Your task to perform on an android device: Open calendar and show me the third week of next month Image 0: 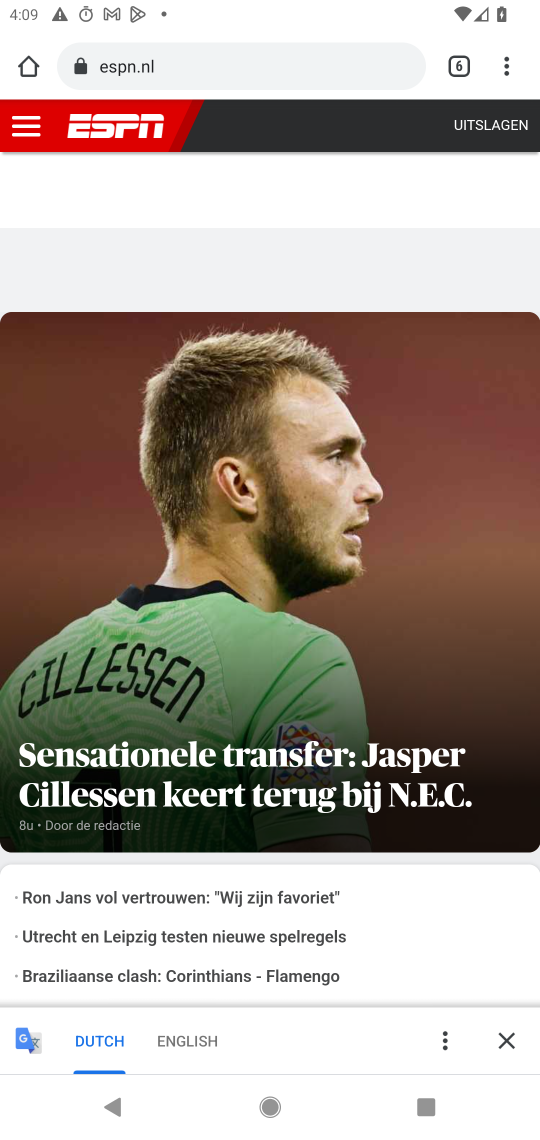
Step 0: press home button
Your task to perform on an android device: Open calendar and show me the third week of next month Image 1: 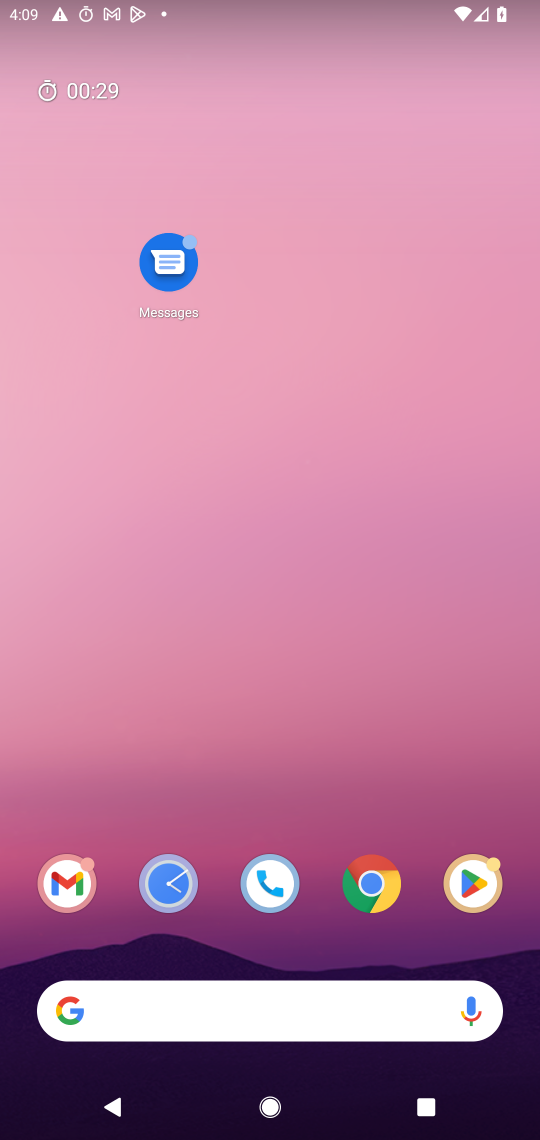
Step 1: drag from (315, 1076) to (318, 21)
Your task to perform on an android device: Open calendar and show me the third week of next month Image 2: 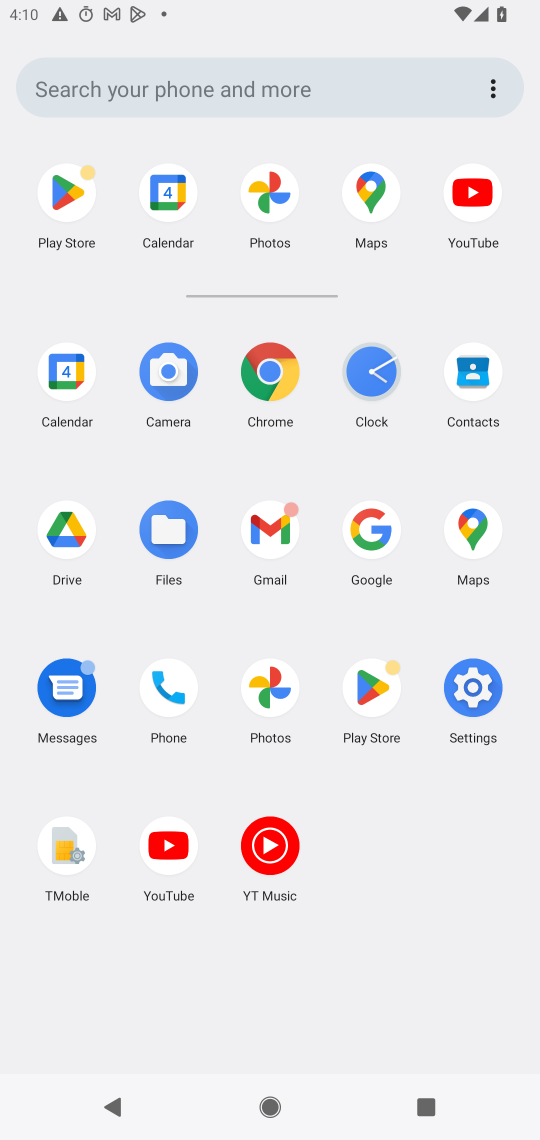
Step 2: click (59, 359)
Your task to perform on an android device: Open calendar and show me the third week of next month Image 3: 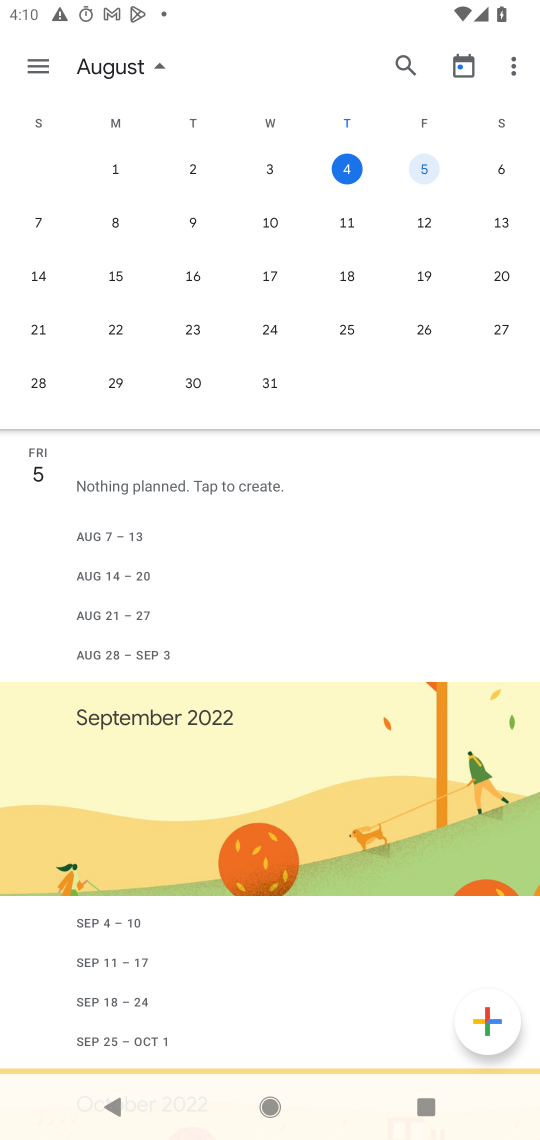
Step 3: drag from (473, 248) to (140, 231)
Your task to perform on an android device: Open calendar and show me the third week of next month Image 4: 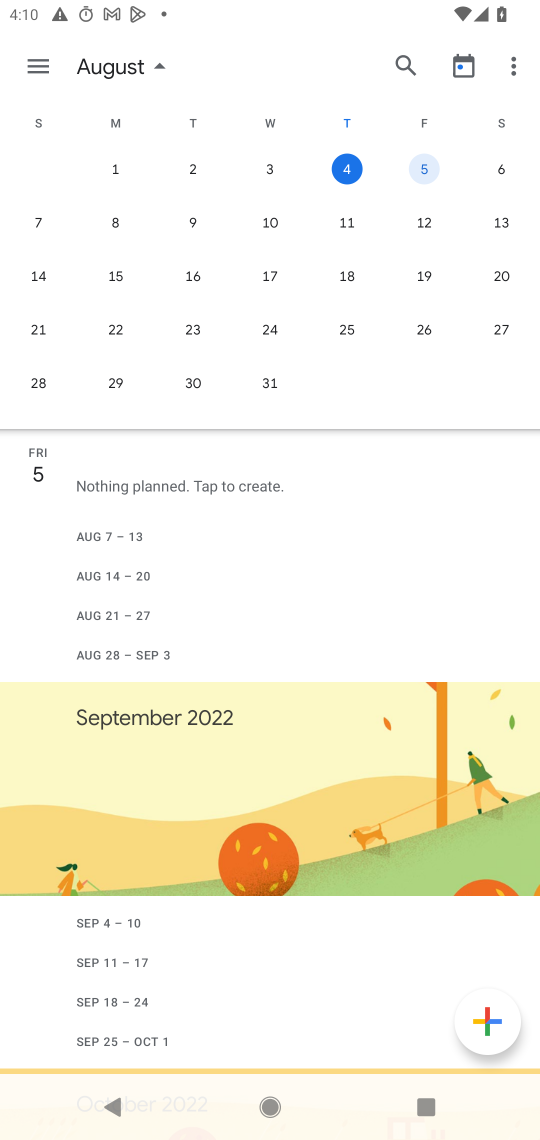
Step 4: drag from (501, 271) to (151, 250)
Your task to perform on an android device: Open calendar and show me the third week of next month Image 5: 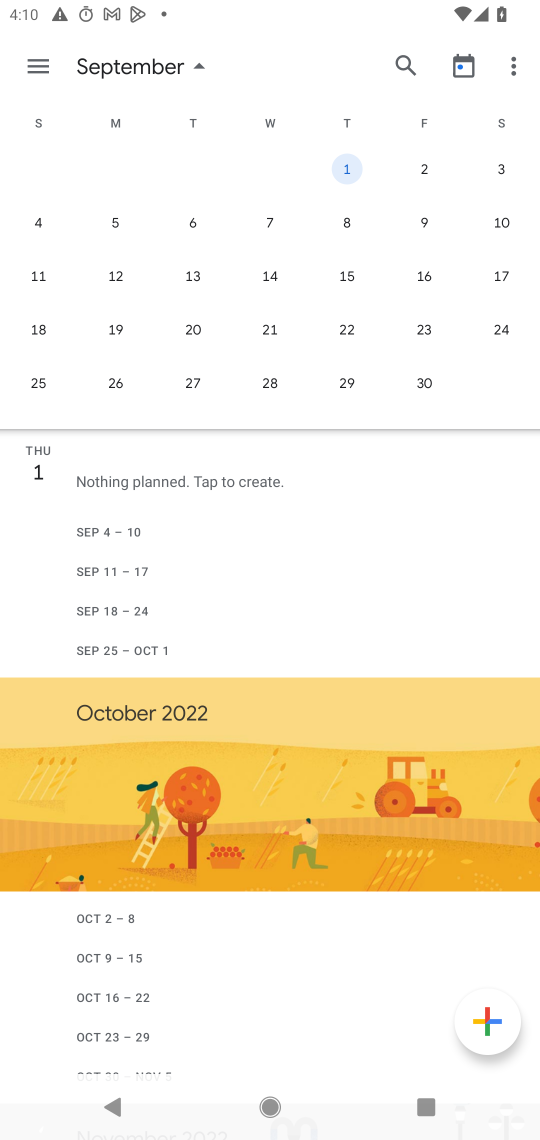
Step 5: click (110, 324)
Your task to perform on an android device: Open calendar and show me the third week of next month Image 6: 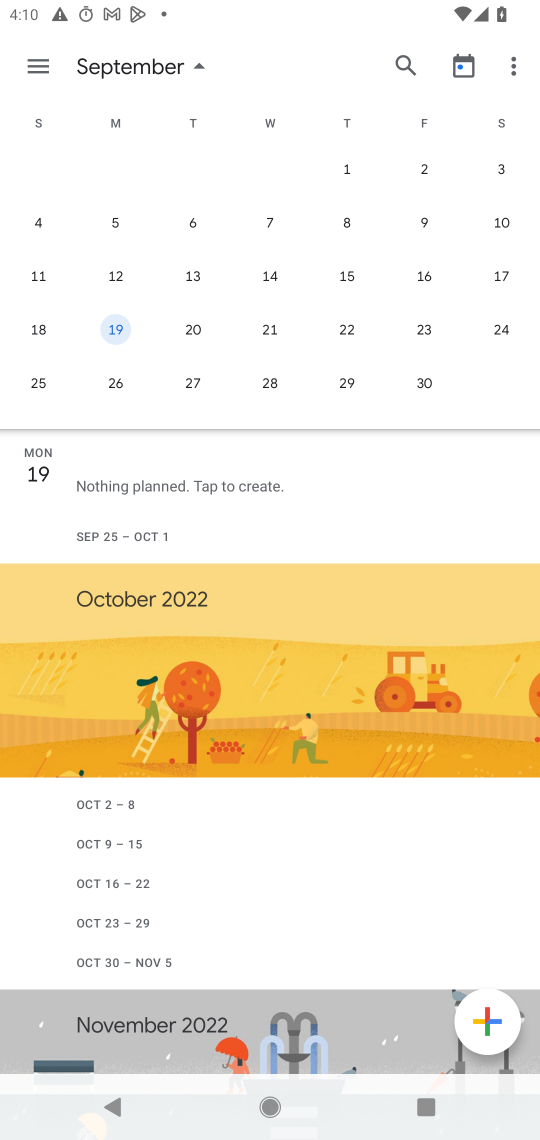
Step 6: click (34, 66)
Your task to perform on an android device: Open calendar and show me the third week of next month Image 7: 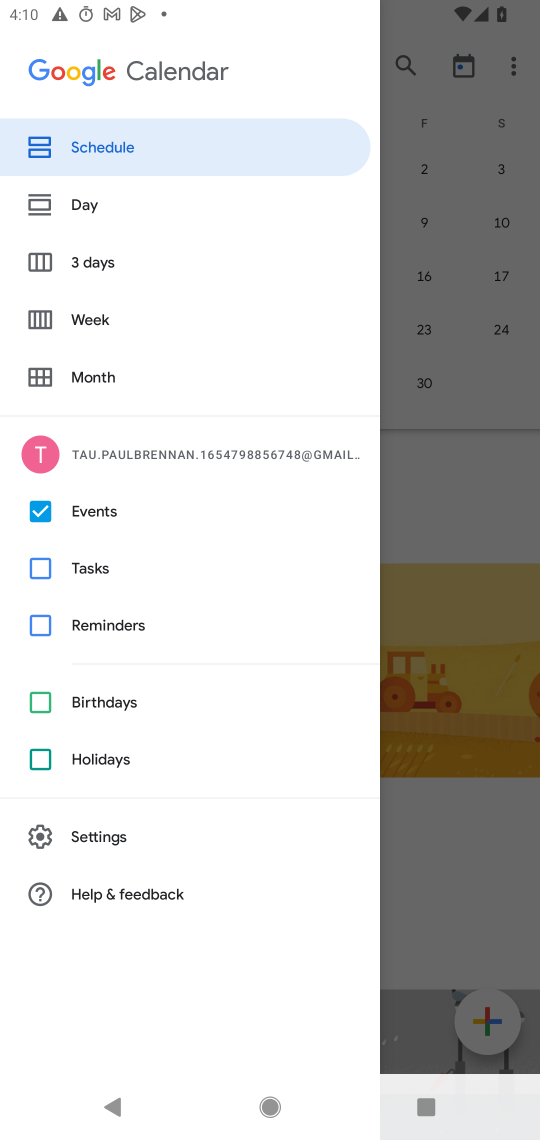
Step 7: click (94, 315)
Your task to perform on an android device: Open calendar and show me the third week of next month Image 8: 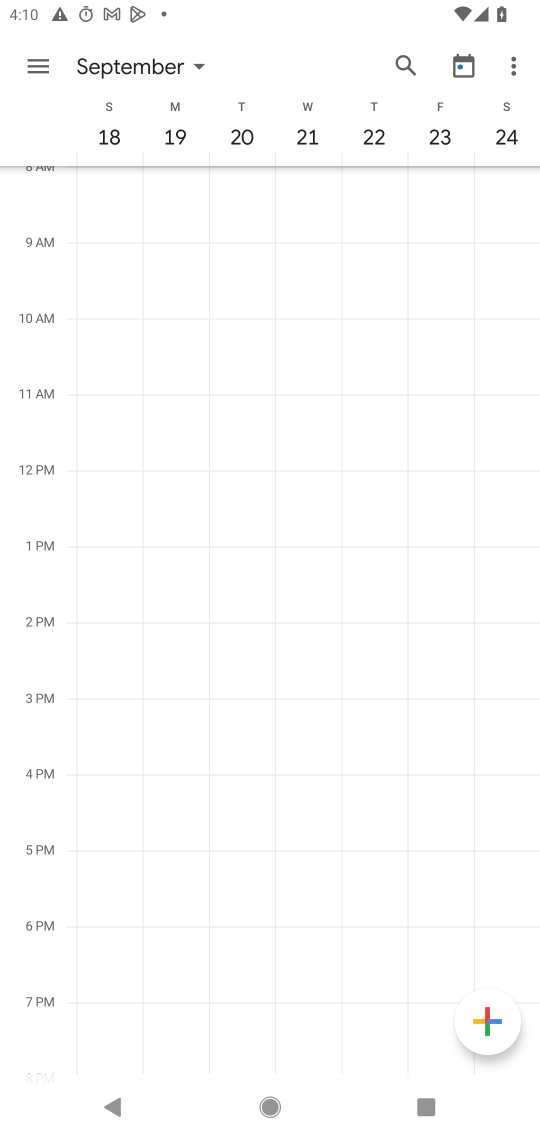
Step 8: task complete